Your task to perform on an android device: toggle pop-ups in chrome Image 0: 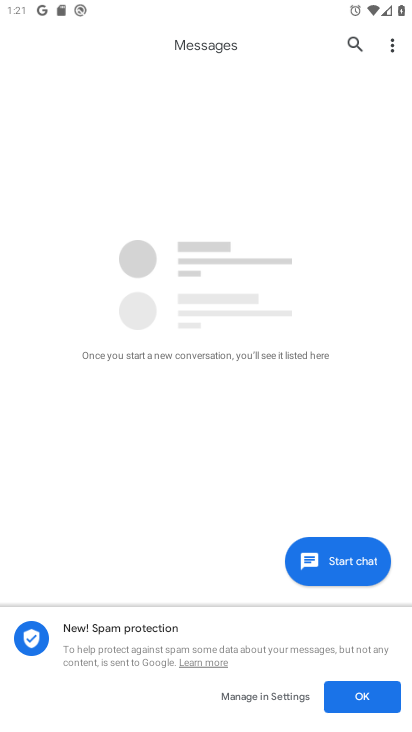
Step 0: press home button
Your task to perform on an android device: toggle pop-ups in chrome Image 1: 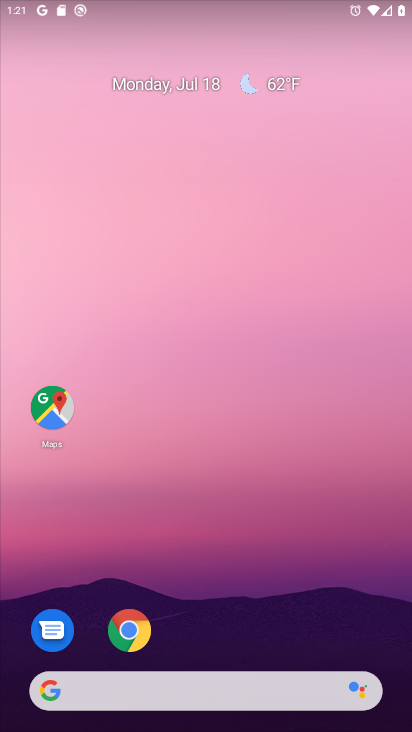
Step 1: click (124, 626)
Your task to perform on an android device: toggle pop-ups in chrome Image 2: 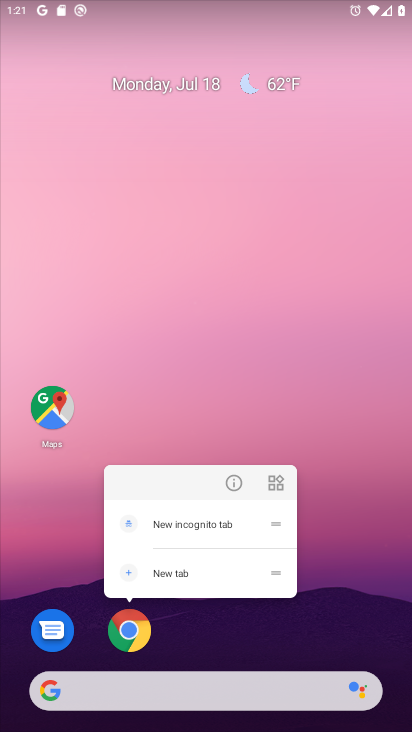
Step 2: click (128, 631)
Your task to perform on an android device: toggle pop-ups in chrome Image 3: 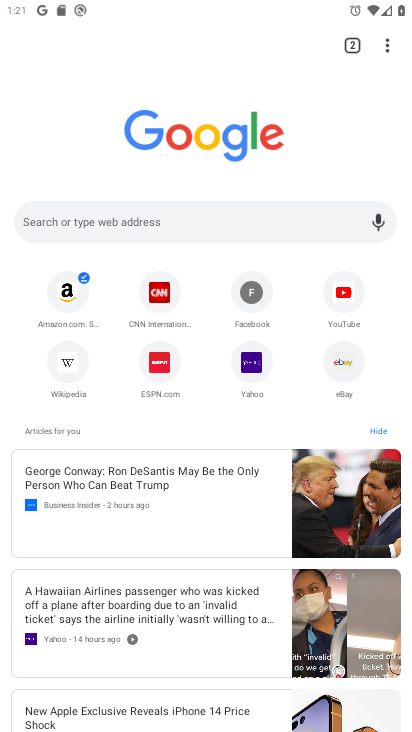
Step 3: click (383, 40)
Your task to perform on an android device: toggle pop-ups in chrome Image 4: 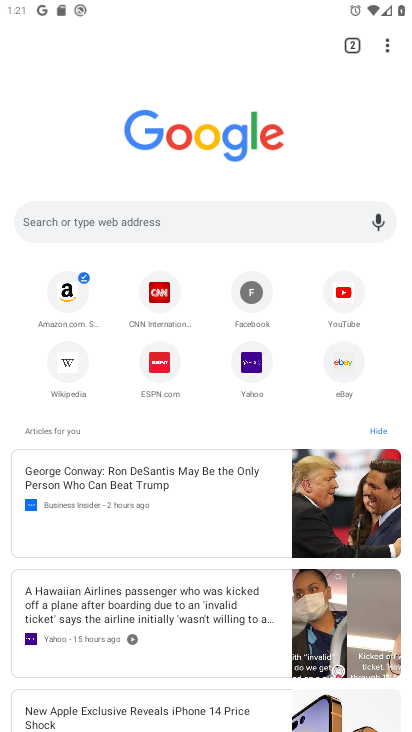
Step 4: click (386, 48)
Your task to perform on an android device: toggle pop-ups in chrome Image 5: 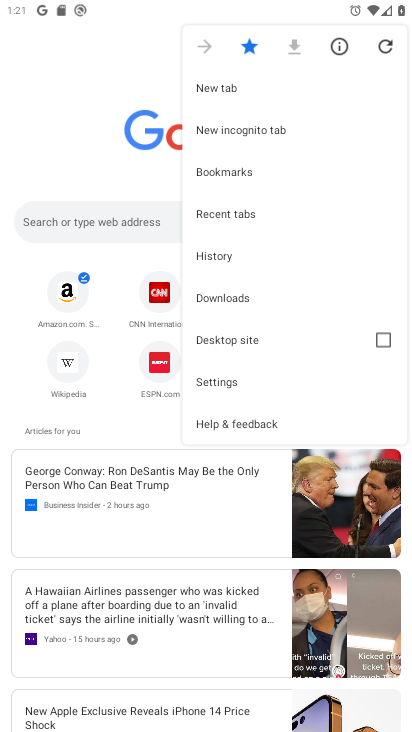
Step 5: click (227, 374)
Your task to perform on an android device: toggle pop-ups in chrome Image 6: 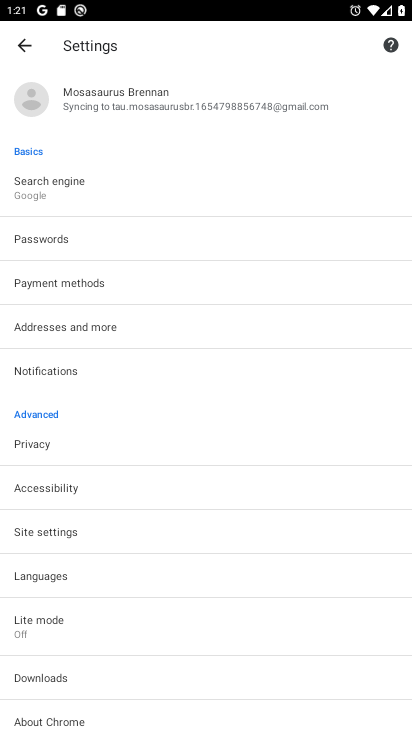
Step 6: click (29, 526)
Your task to perform on an android device: toggle pop-ups in chrome Image 7: 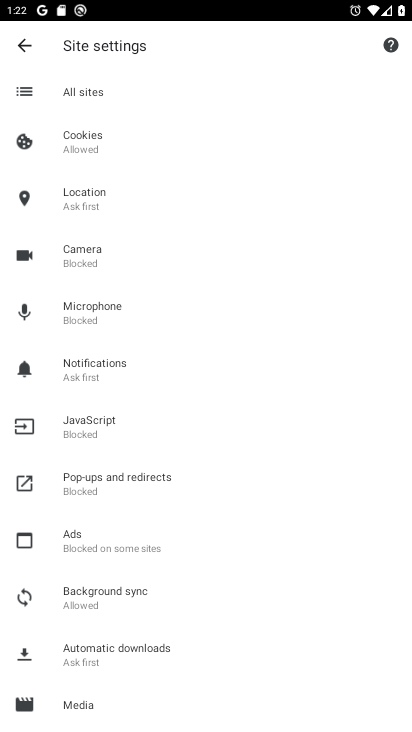
Step 7: click (94, 481)
Your task to perform on an android device: toggle pop-ups in chrome Image 8: 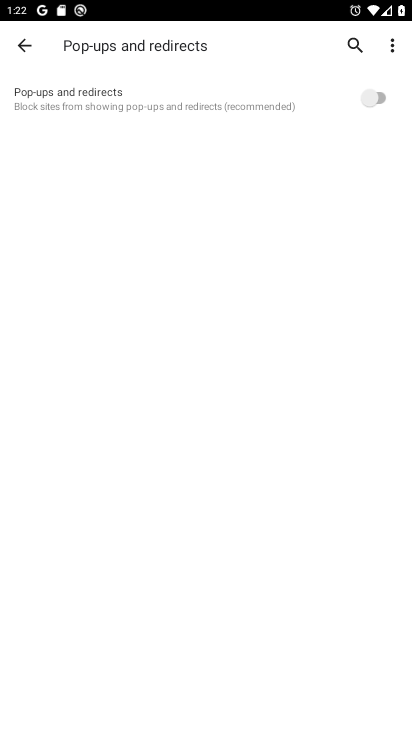
Step 8: click (377, 95)
Your task to perform on an android device: toggle pop-ups in chrome Image 9: 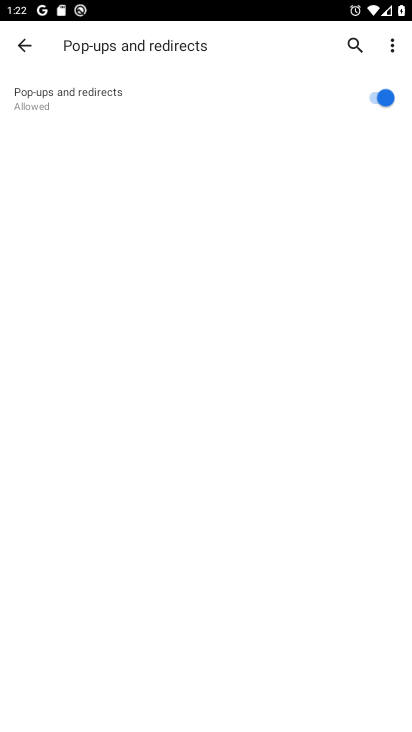
Step 9: task complete